Your task to perform on an android device: Open Wikipedia Image 0: 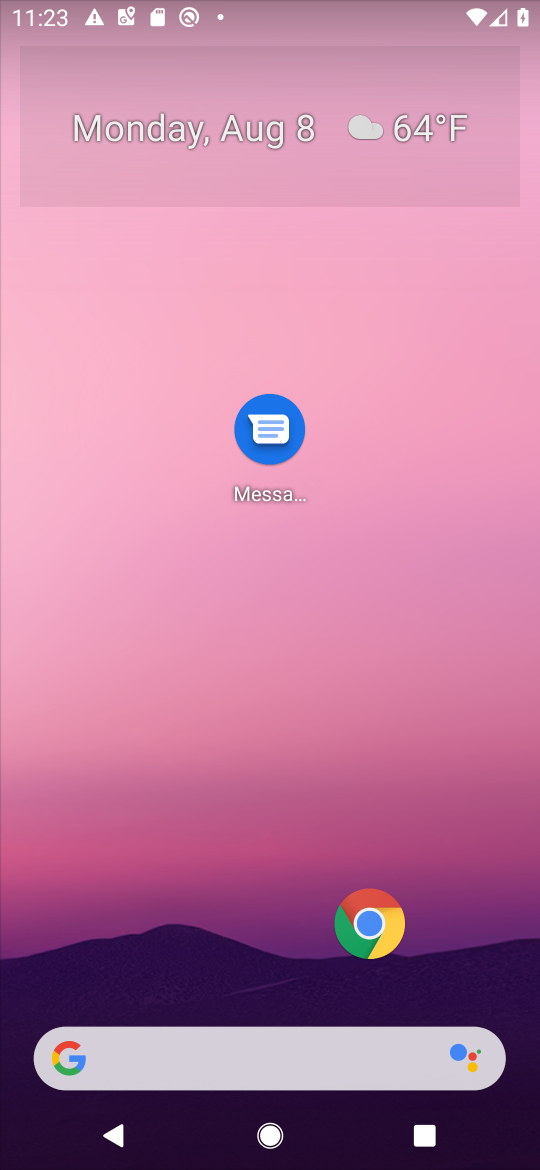
Step 0: click (149, 1063)
Your task to perform on an android device: Open Wikipedia Image 1: 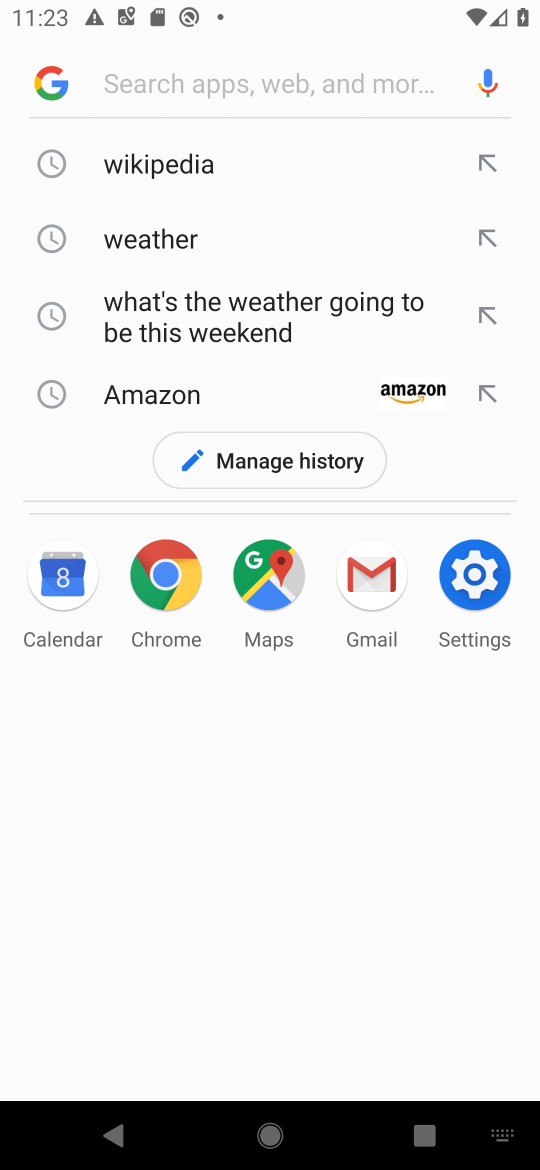
Step 1: click (149, 163)
Your task to perform on an android device: Open Wikipedia Image 2: 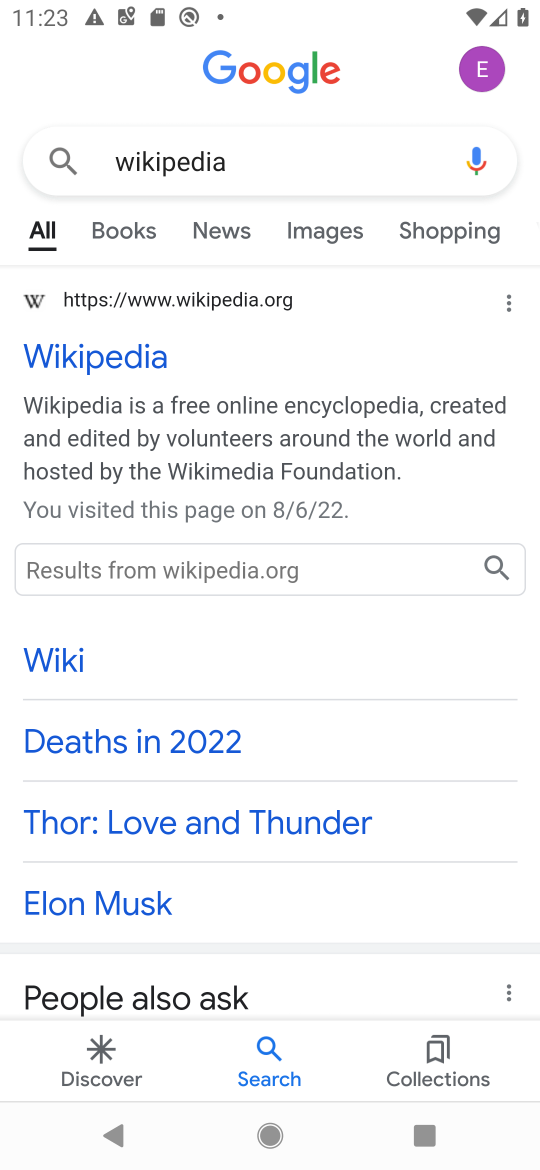
Step 2: task complete